Your task to perform on an android device: toggle sleep mode Image 0: 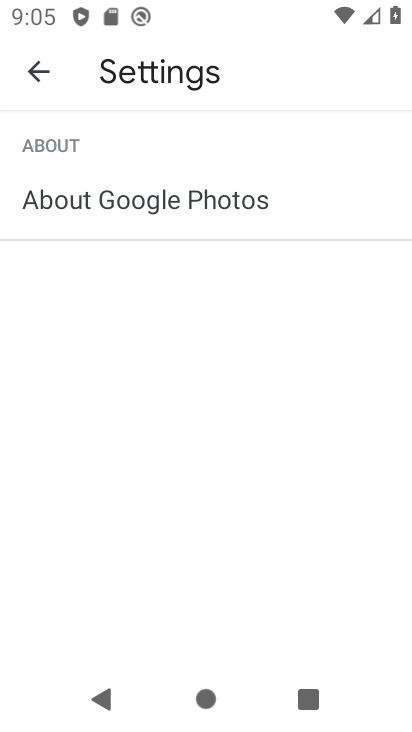
Step 0: press home button
Your task to perform on an android device: toggle sleep mode Image 1: 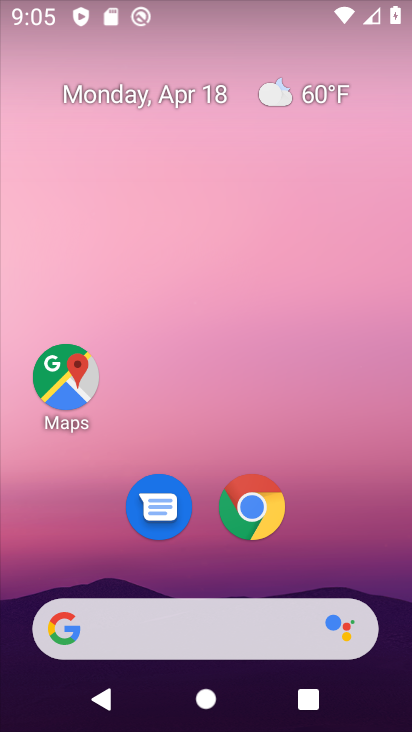
Step 1: drag from (357, 558) to (354, 117)
Your task to perform on an android device: toggle sleep mode Image 2: 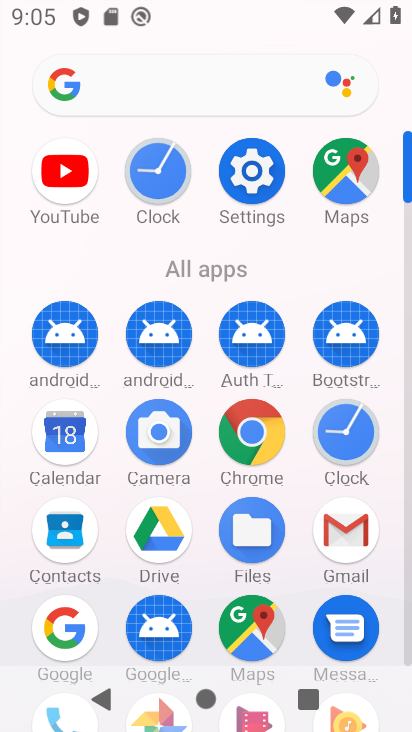
Step 2: click (262, 188)
Your task to perform on an android device: toggle sleep mode Image 3: 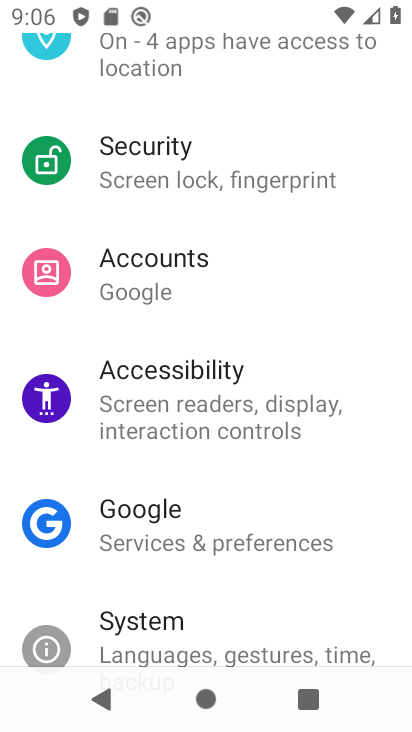
Step 3: drag from (335, 301) to (338, 563)
Your task to perform on an android device: toggle sleep mode Image 4: 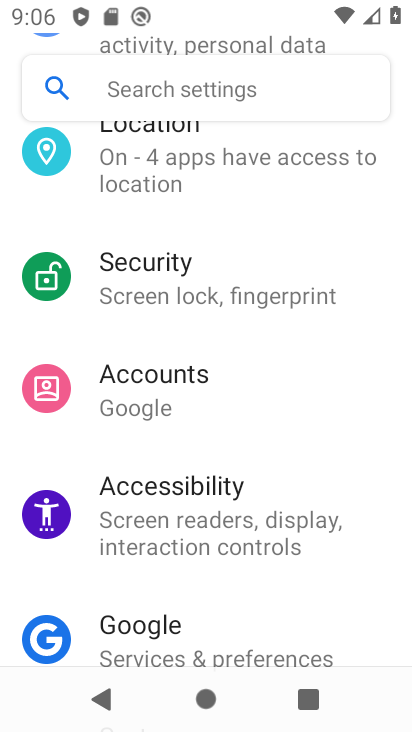
Step 4: drag from (317, 361) to (297, 605)
Your task to perform on an android device: toggle sleep mode Image 5: 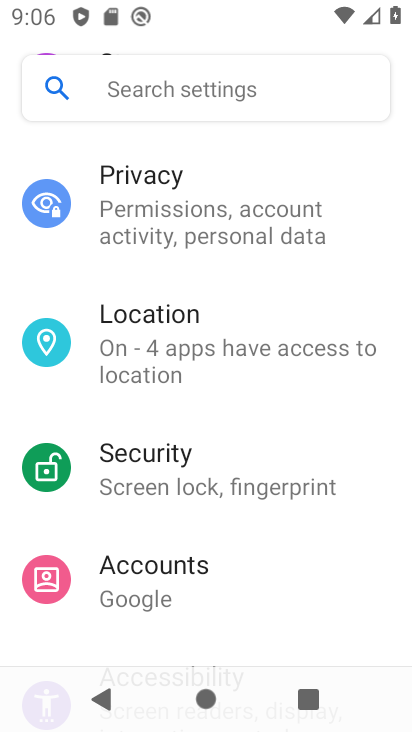
Step 5: drag from (275, 234) to (249, 586)
Your task to perform on an android device: toggle sleep mode Image 6: 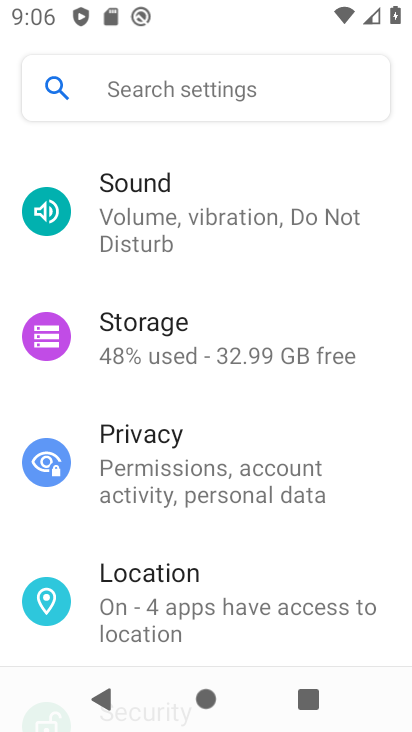
Step 6: drag from (252, 238) to (238, 552)
Your task to perform on an android device: toggle sleep mode Image 7: 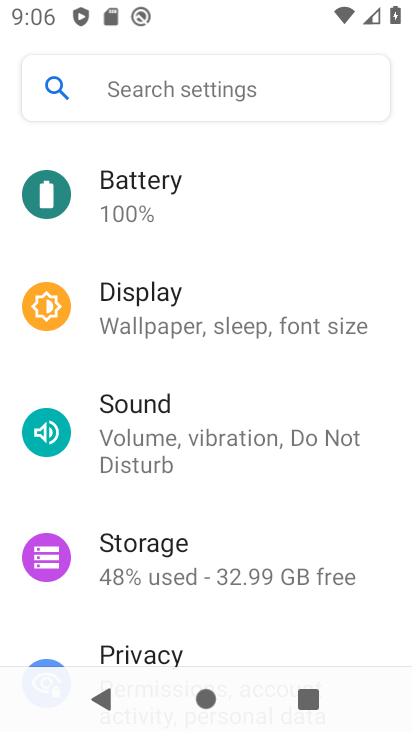
Step 7: click (197, 314)
Your task to perform on an android device: toggle sleep mode Image 8: 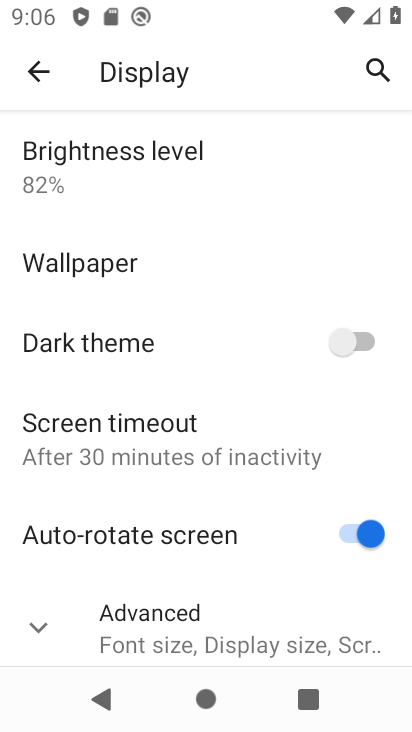
Step 8: click (36, 630)
Your task to perform on an android device: toggle sleep mode Image 9: 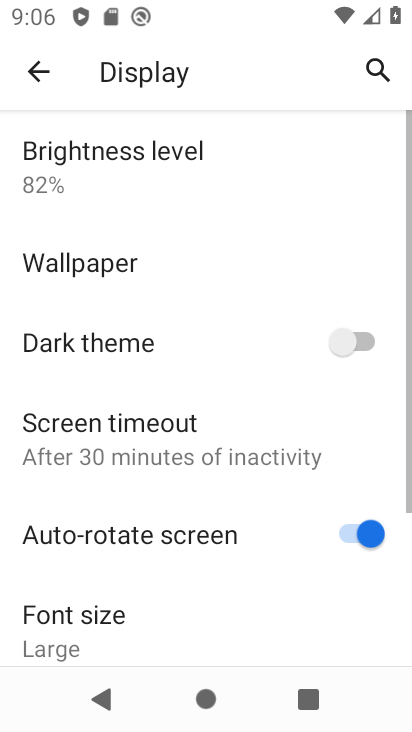
Step 9: task complete